Your task to perform on an android device: What's the weather? Image 0: 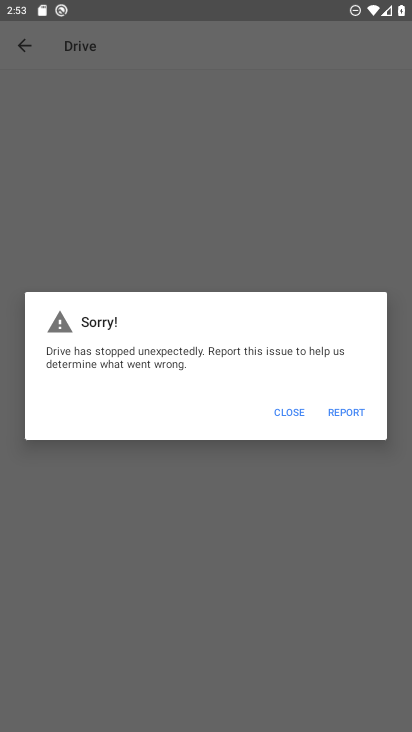
Step 0: press home button
Your task to perform on an android device: What's the weather? Image 1: 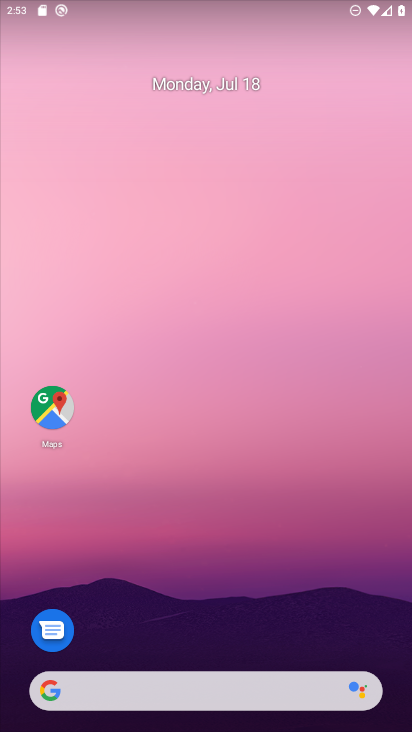
Step 1: drag from (334, 657) to (387, 56)
Your task to perform on an android device: What's the weather? Image 2: 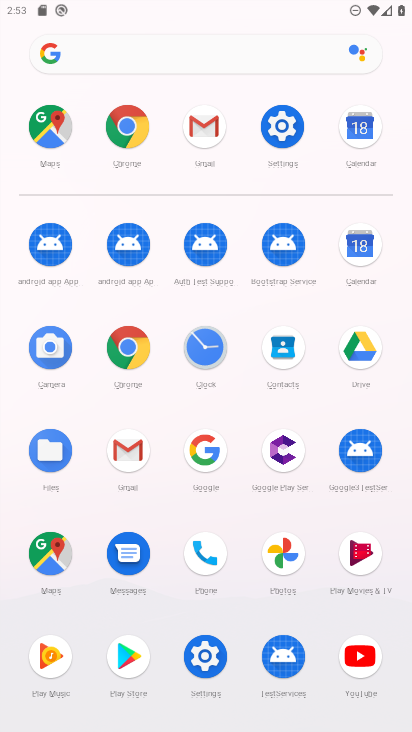
Step 2: click (137, 354)
Your task to perform on an android device: What's the weather? Image 3: 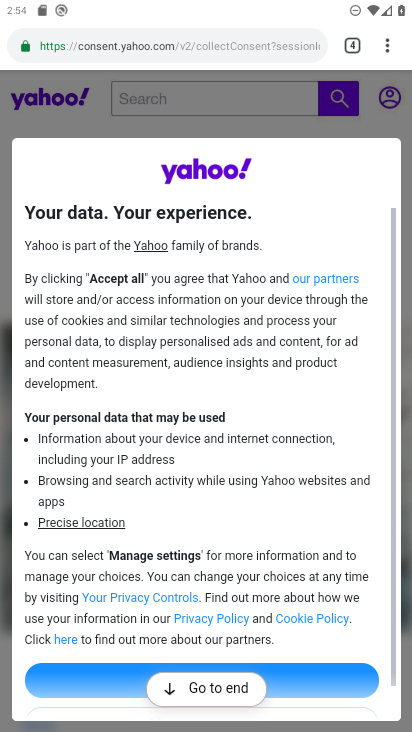
Step 3: click (179, 40)
Your task to perform on an android device: What's the weather? Image 4: 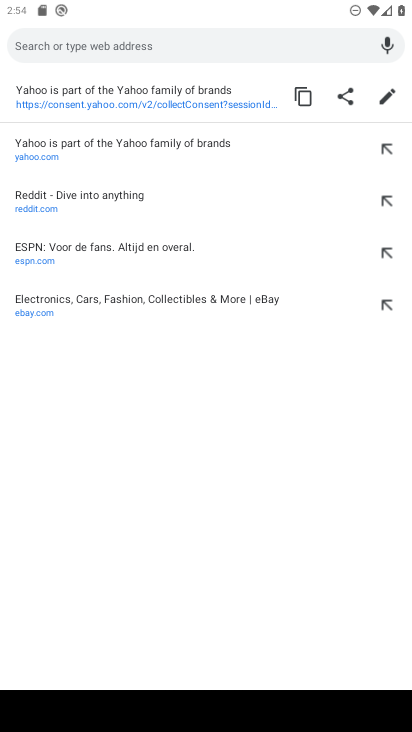
Step 4: type "whats the weather"
Your task to perform on an android device: What's the weather? Image 5: 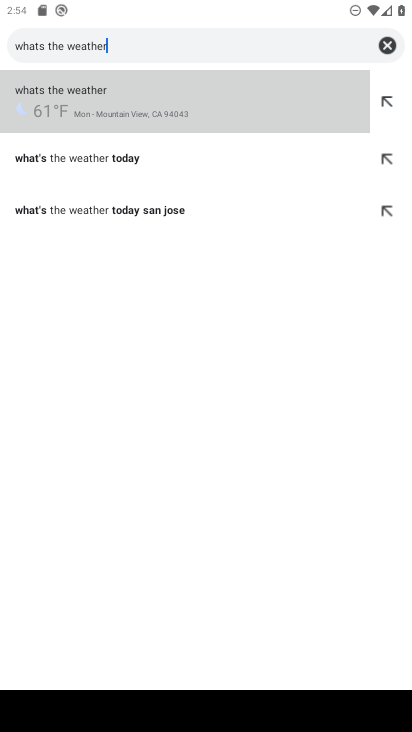
Step 5: click (249, 117)
Your task to perform on an android device: What's the weather? Image 6: 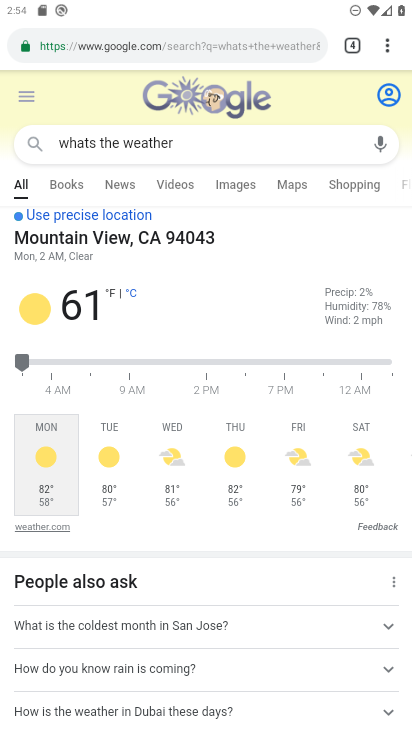
Step 6: task complete